Your task to perform on an android device: toggle improve location accuracy Image 0: 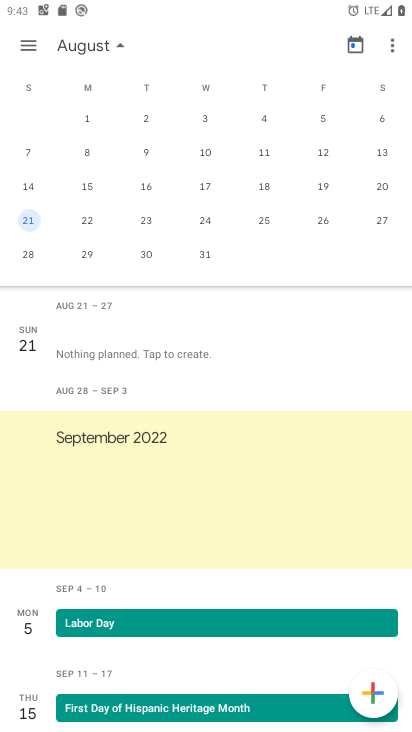
Step 0: press home button
Your task to perform on an android device: toggle improve location accuracy Image 1: 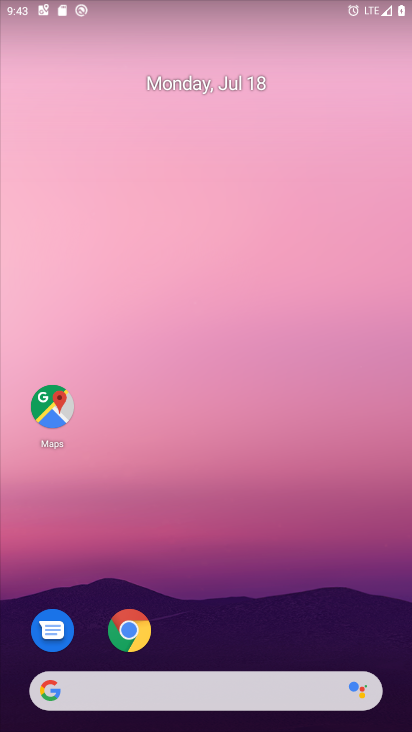
Step 1: drag from (176, 284) to (184, 129)
Your task to perform on an android device: toggle improve location accuracy Image 2: 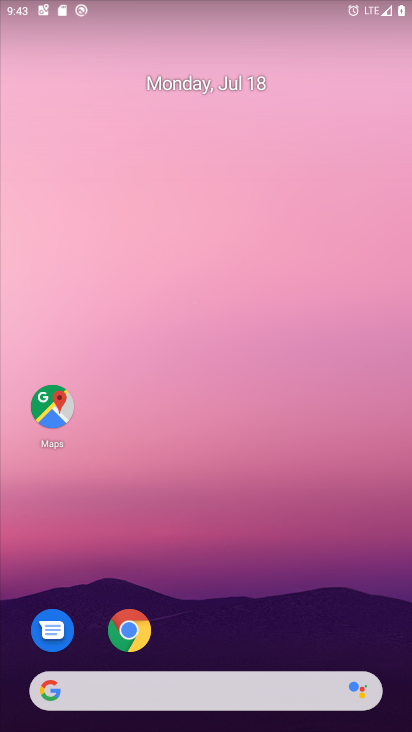
Step 2: drag from (217, 623) to (237, 188)
Your task to perform on an android device: toggle improve location accuracy Image 3: 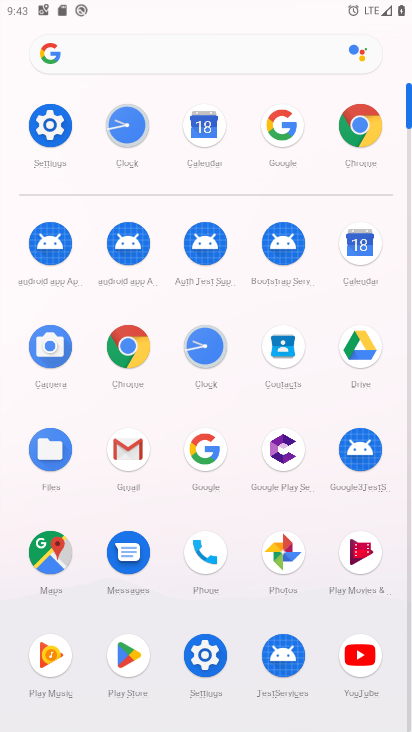
Step 3: click (63, 129)
Your task to perform on an android device: toggle improve location accuracy Image 4: 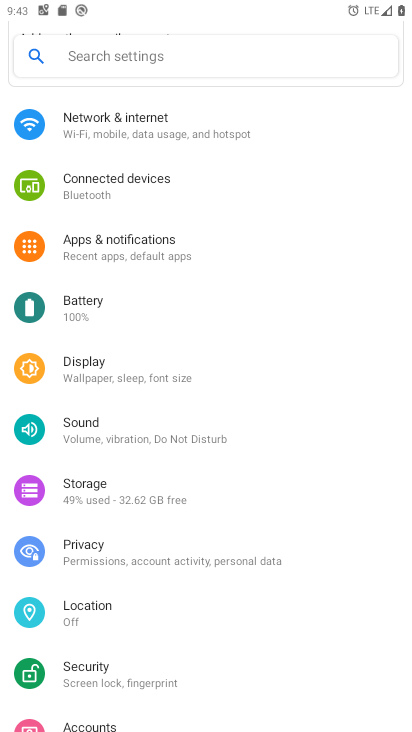
Step 4: click (127, 621)
Your task to perform on an android device: toggle improve location accuracy Image 5: 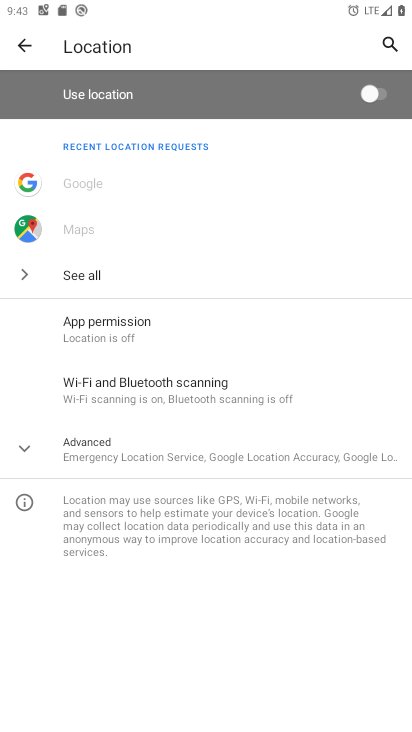
Step 5: click (148, 461)
Your task to perform on an android device: toggle improve location accuracy Image 6: 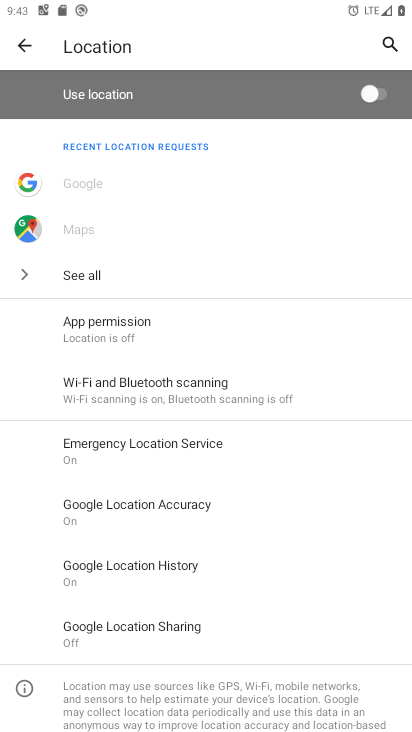
Step 6: click (178, 509)
Your task to perform on an android device: toggle improve location accuracy Image 7: 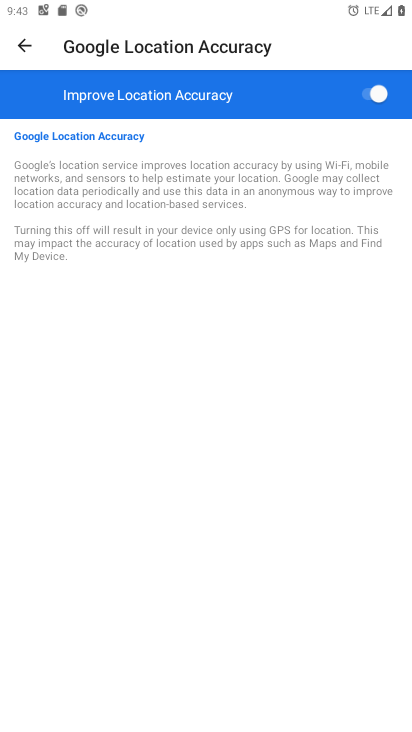
Step 7: click (365, 89)
Your task to perform on an android device: toggle improve location accuracy Image 8: 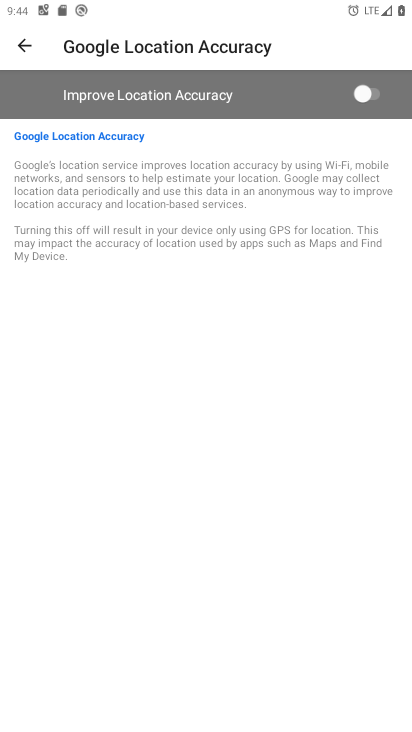
Step 8: task complete